Your task to perform on an android device: add a contact in the contacts app Image 0: 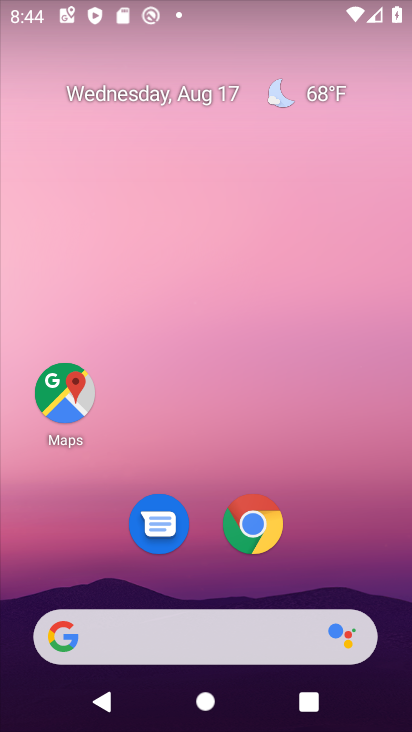
Step 0: drag from (317, 526) to (339, 38)
Your task to perform on an android device: add a contact in the contacts app Image 1: 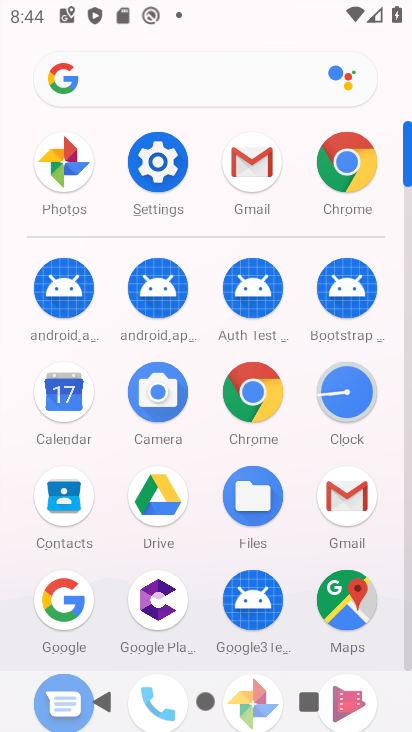
Step 1: click (64, 492)
Your task to perform on an android device: add a contact in the contacts app Image 2: 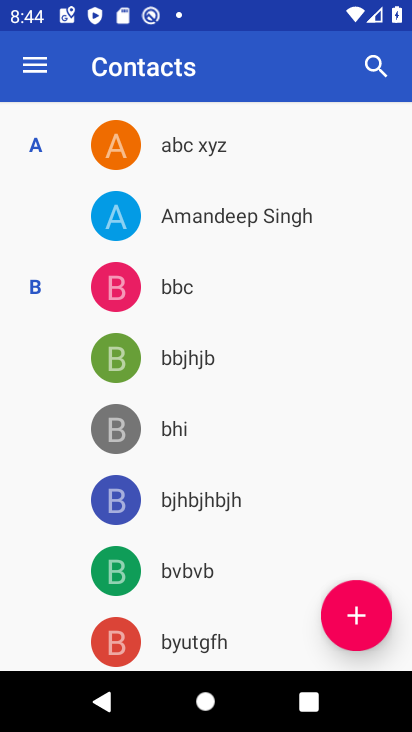
Step 2: click (353, 625)
Your task to perform on an android device: add a contact in the contacts app Image 3: 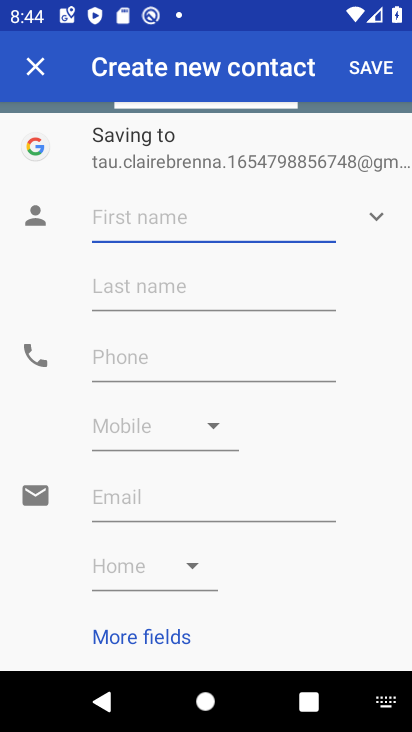
Step 3: type "Abha"
Your task to perform on an android device: add a contact in the contacts app Image 4: 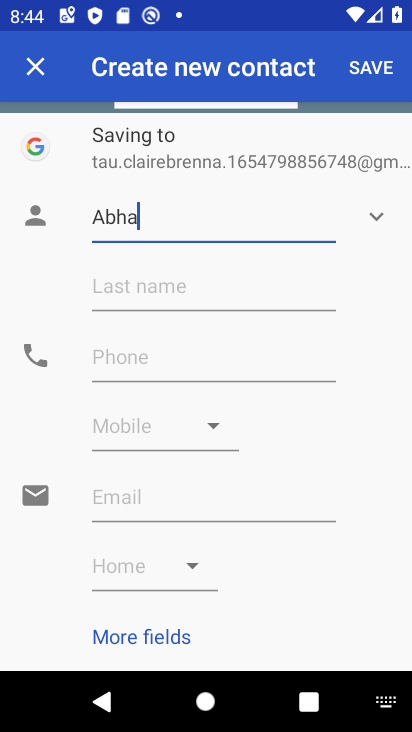
Step 4: click (270, 367)
Your task to perform on an android device: add a contact in the contacts app Image 5: 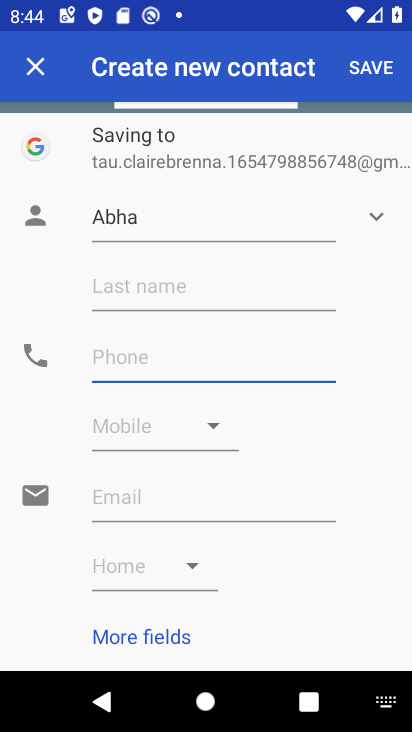
Step 5: type "9999876543"
Your task to perform on an android device: add a contact in the contacts app Image 6: 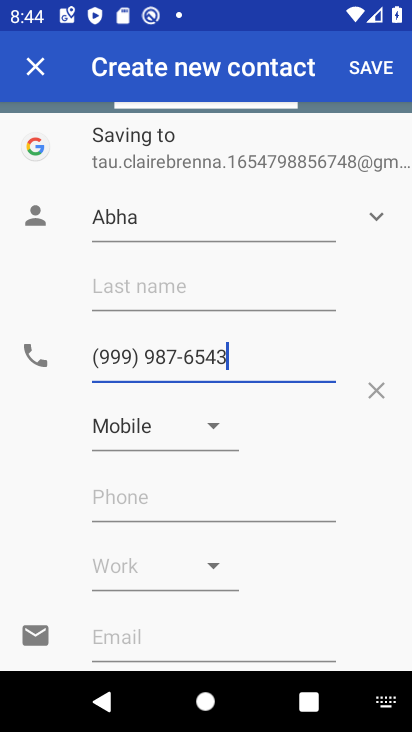
Step 6: click (382, 72)
Your task to perform on an android device: add a contact in the contacts app Image 7: 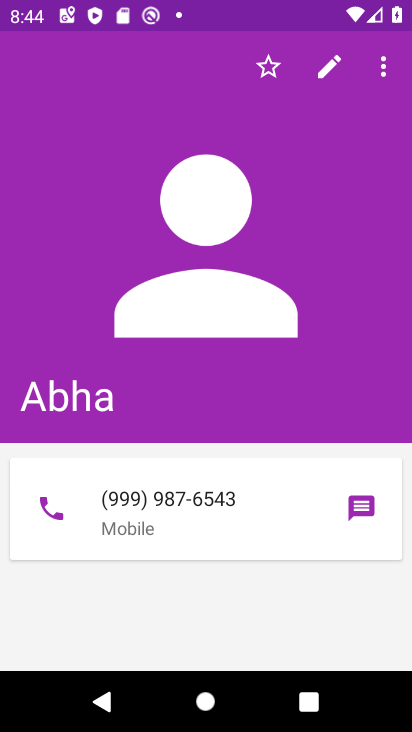
Step 7: task complete